Your task to perform on an android device: Empty the shopping cart on walmart.com. Search for razer kraken on walmart.com, select the first entry, add it to the cart, then select checkout. Image 0: 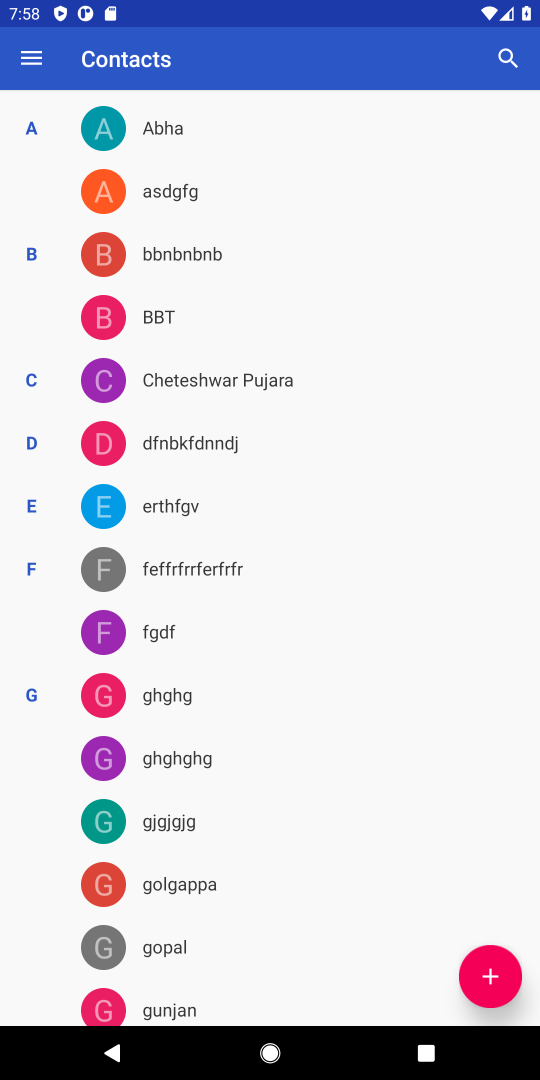
Step 0: press home button
Your task to perform on an android device: Empty the shopping cart on walmart.com. Search for razer kraken on walmart.com, select the first entry, add it to the cart, then select checkout. Image 1: 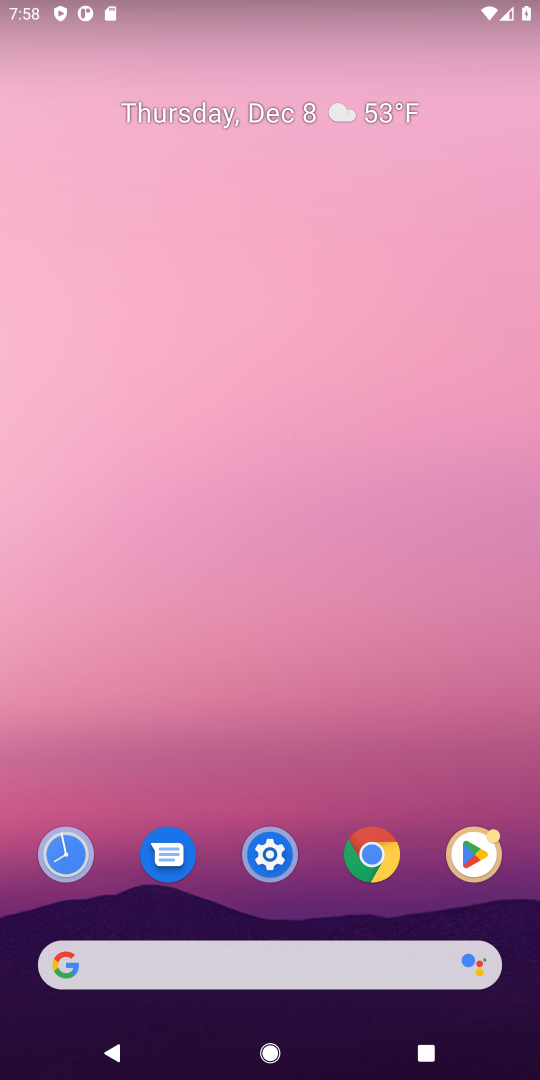
Step 1: click (108, 966)
Your task to perform on an android device: Empty the shopping cart on walmart.com. Search for razer kraken on walmart.com, select the first entry, add it to the cart, then select checkout. Image 2: 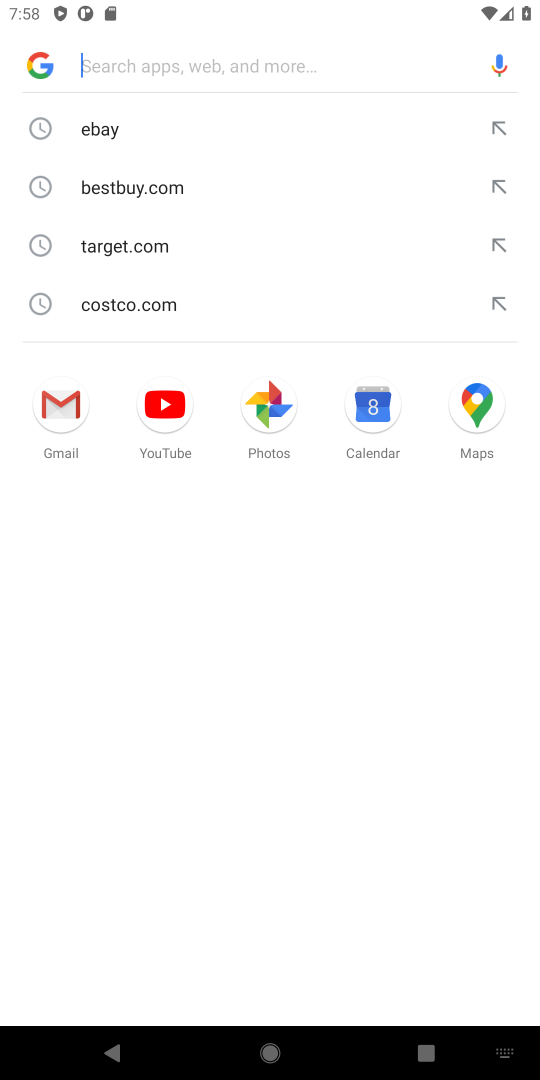
Step 2: type "walmart.com"
Your task to perform on an android device: Empty the shopping cart on walmart.com. Search for razer kraken on walmart.com, select the first entry, add it to the cart, then select checkout. Image 3: 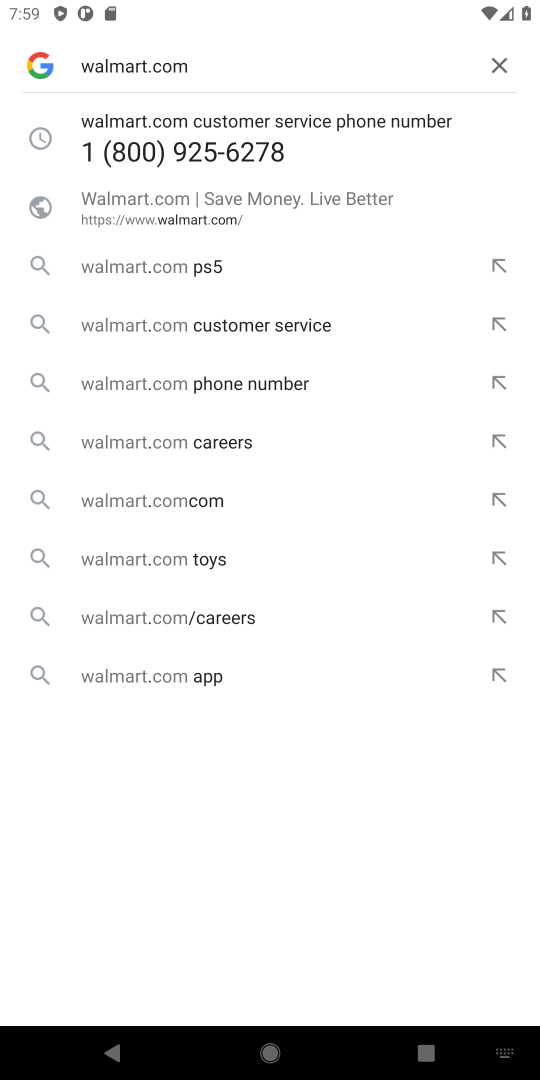
Step 3: press enter
Your task to perform on an android device: Empty the shopping cart on walmart.com. Search for razer kraken on walmart.com, select the first entry, add it to the cart, then select checkout. Image 4: 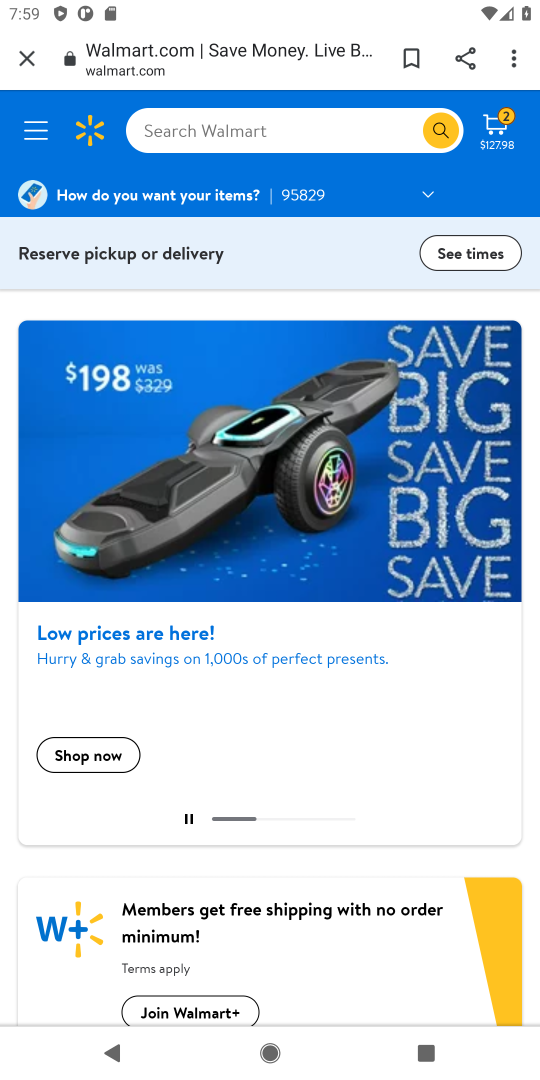
Step 4: click (498, 125)
Your task to perform on an android device: Empty the shopping cart on walmart.com. Search for razer kraken on walmart.com, select the first entry, add it to the cart, then select checkout. Image 5: 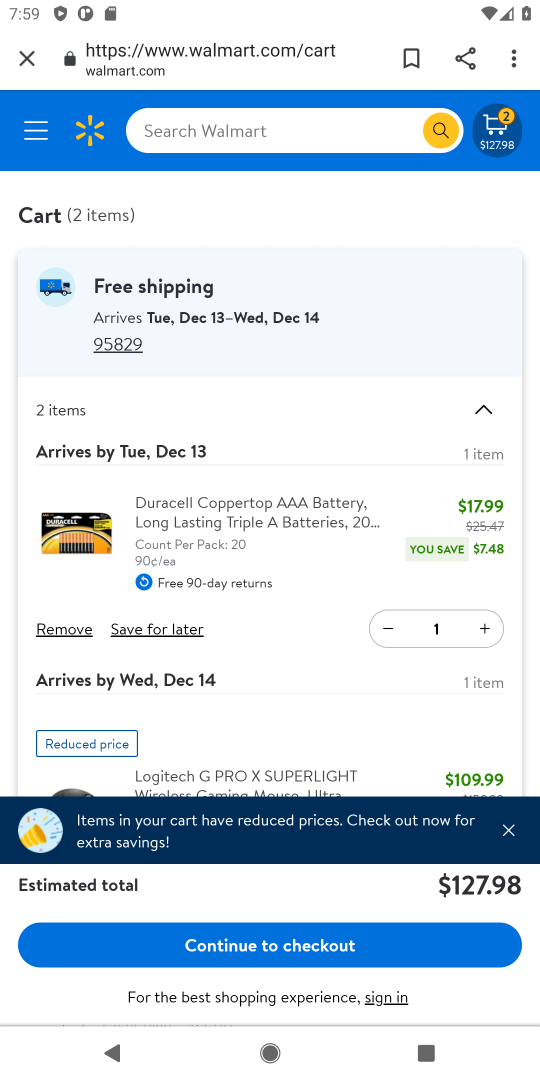
Step 5: click (49, 626)
Your task to perform on an android device: Empty the shopping cart on walmart.com. Search for razer kraken on walmart.com, select the first entry, add it to the cart, then select checkout. Image 6: 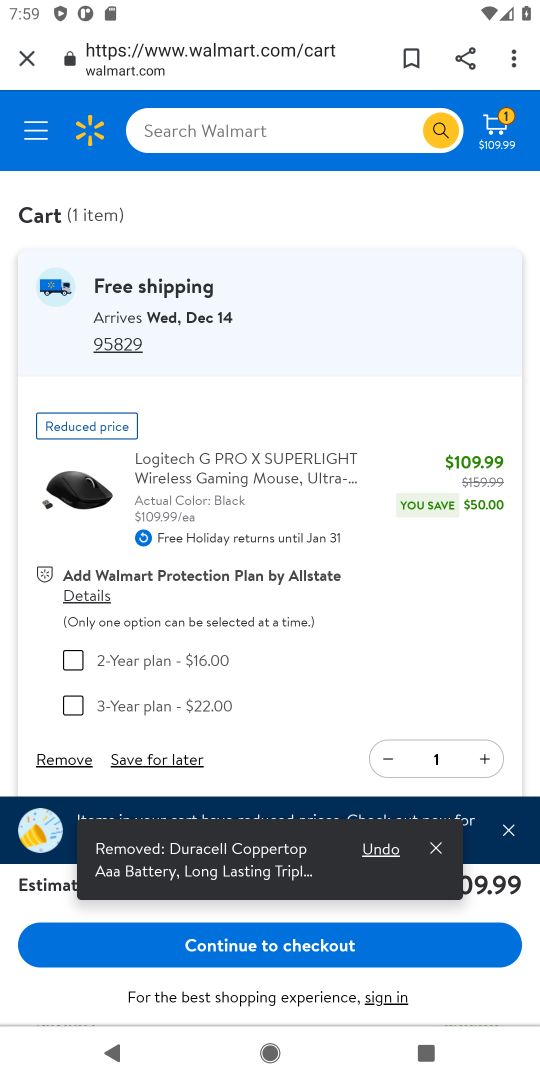
Step 6: click (54, 759)
Your task to perform on an android device: Empty the shopping cart on walmart.com. Search for razer kraken on walmart.com, select the first entry, add it to the cart, then select checkout. Image 7: 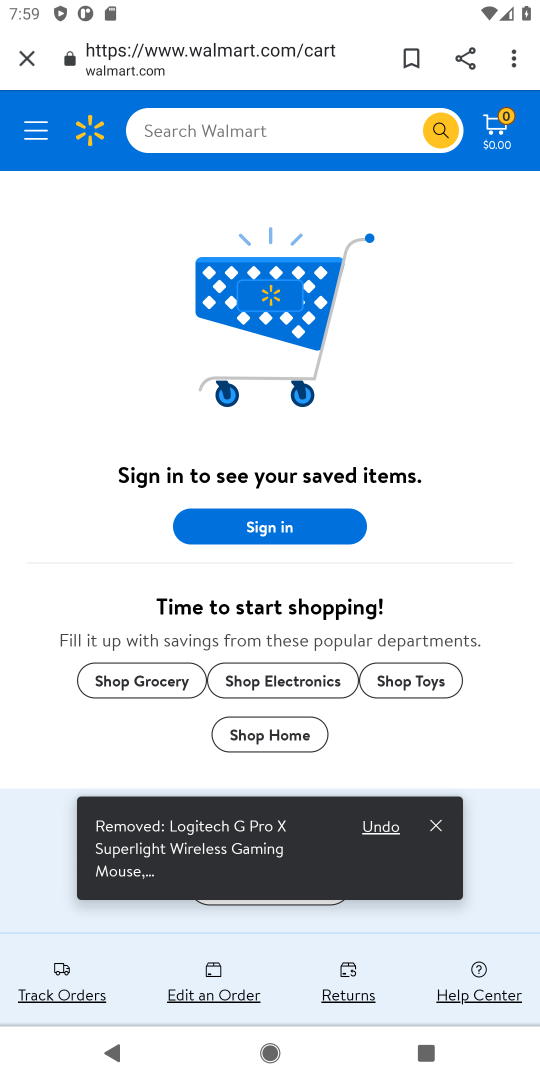
Step 7: click (178, 119)
Your task to perform on an android device: Empty the shopping cart on walmart.com. Search for razer kraken on walmart.com, select the first entry, add it to the cart, then select checkout. Image 8: 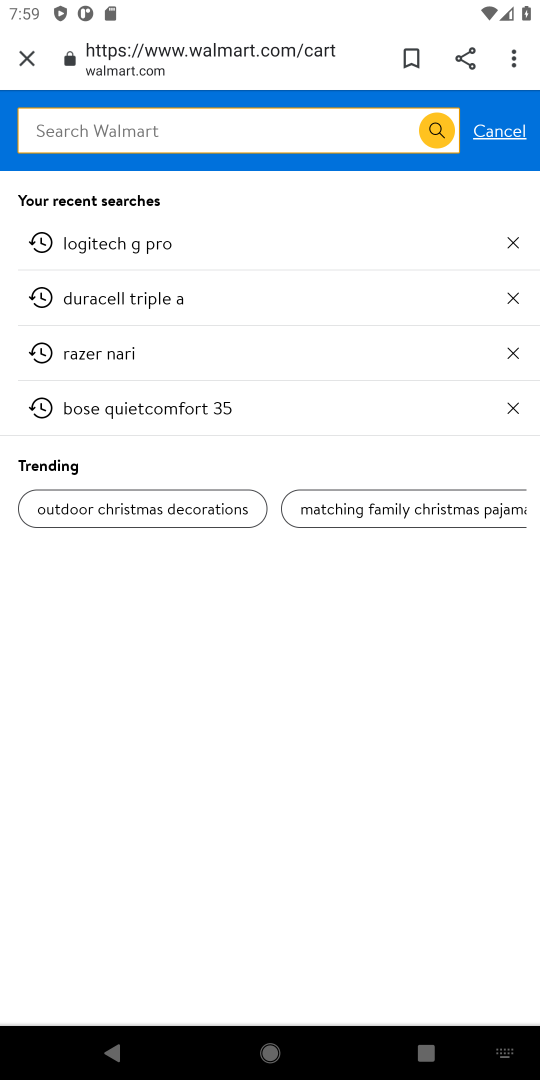
Step 8: type "razer kraken"
Your task to perform on an android device: Empty the shopping cart on walmart.com. Search for razer kraken on walmart.com, select the first entry, add it to the cart, then select checkout. Image 9: 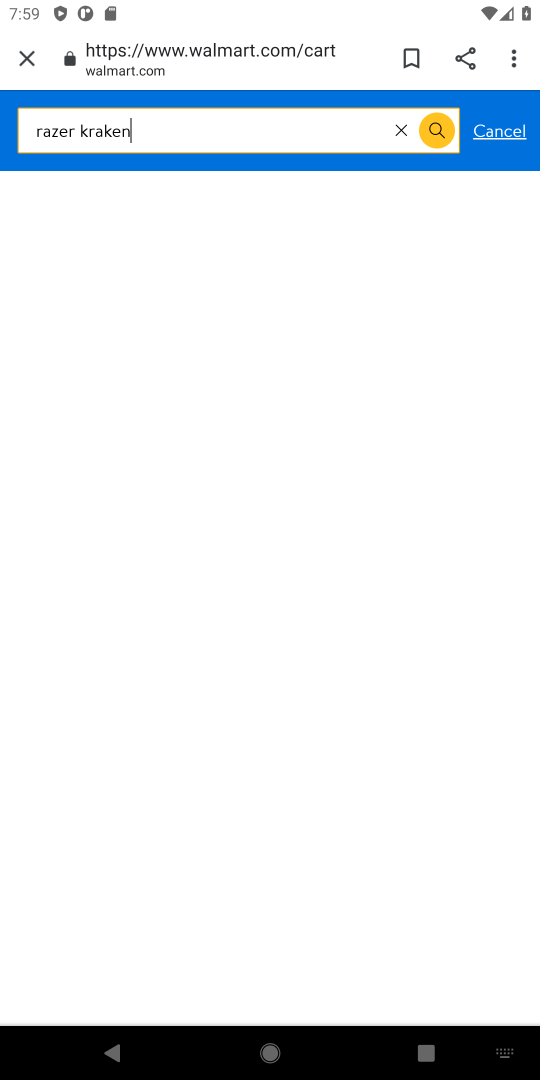
Step 9: press enter
Your task to perform on an android device: Empty the shopping cart on walmart.com. Search for razer kraken on walmart.com, select the first entry, add it to the cart, then select checkout. Image 10: 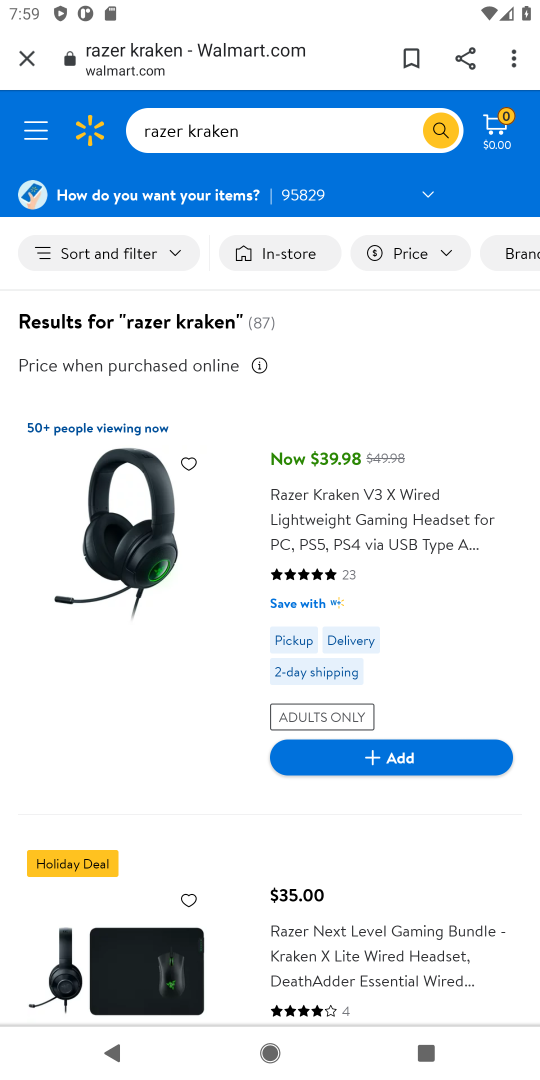
Step 10: click (400, 759)
Your task to perform on an android device: Empty the shopping cart on walmart.com. Search for razer kraken on walmart.com, select the first entry, add it to the cart, then select checkout. Image 11: 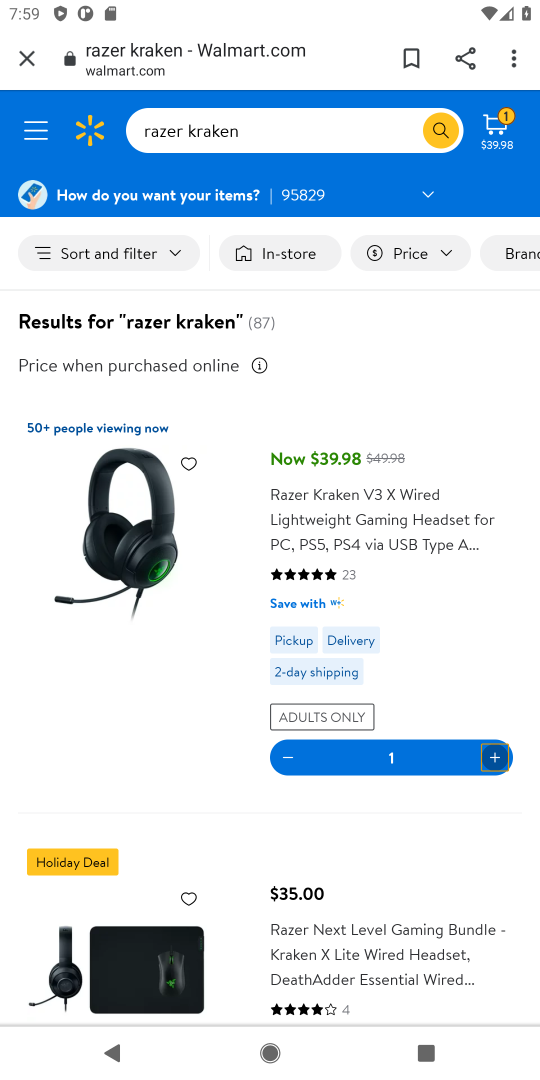
Step 11: task complete